Your task to perform on an android device: Show me recent news Image 0: 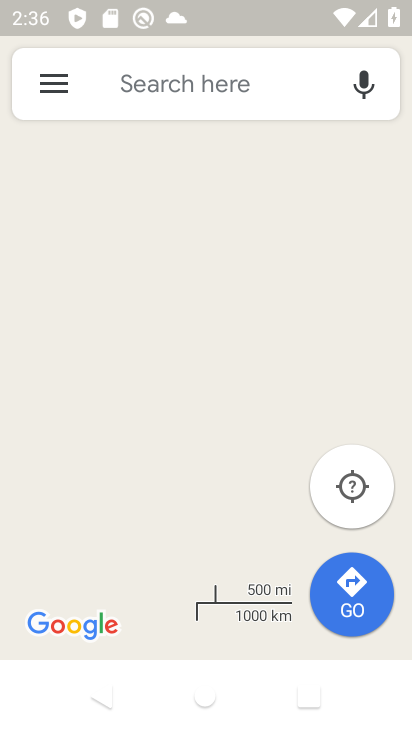
Step 0: press home button
Your task to perform on an android device: Show me recent news Image 1: 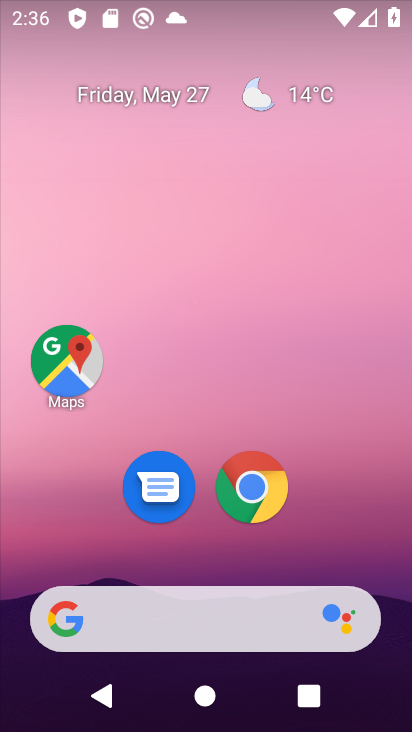
Step 1: click (254, 493)
Your task to perform on an android device: Show me recent news Image 2: 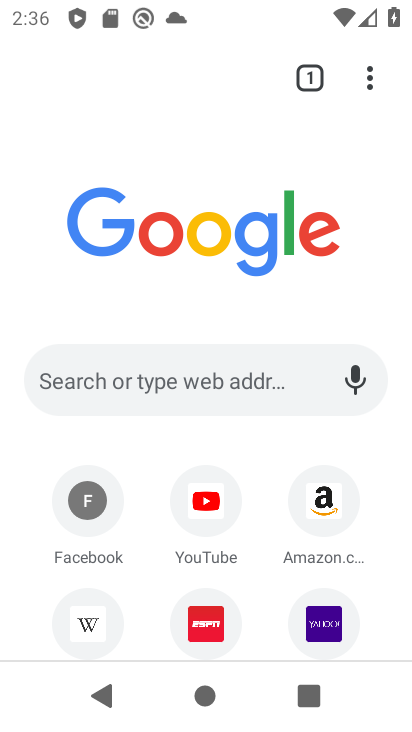
Step 2: click (231, 370)
Your task to perform on an android device: Show me recent news Image 3: 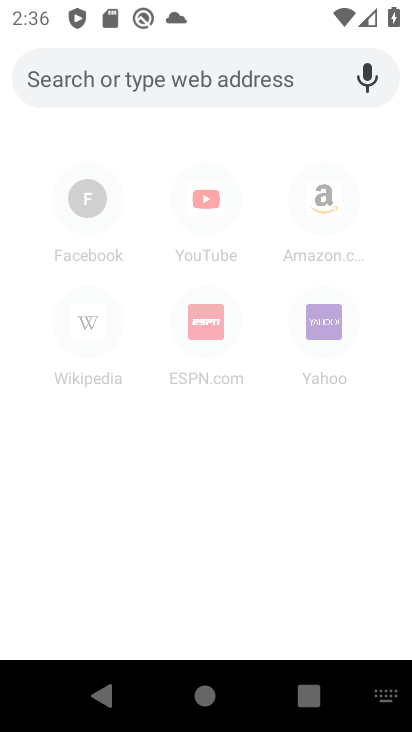
Step 3: type "Show me recent news"
Your task to perform on an android device: Show me recent news Image 4: 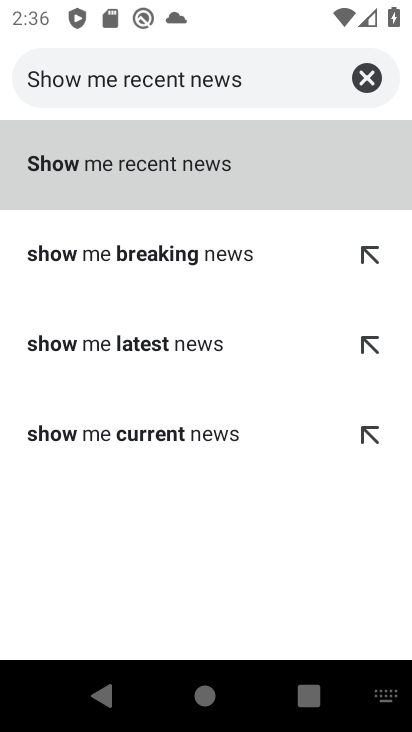
Step 4: click (168, 155)
Your task to perform on an android device: Show me recent news Image 5: 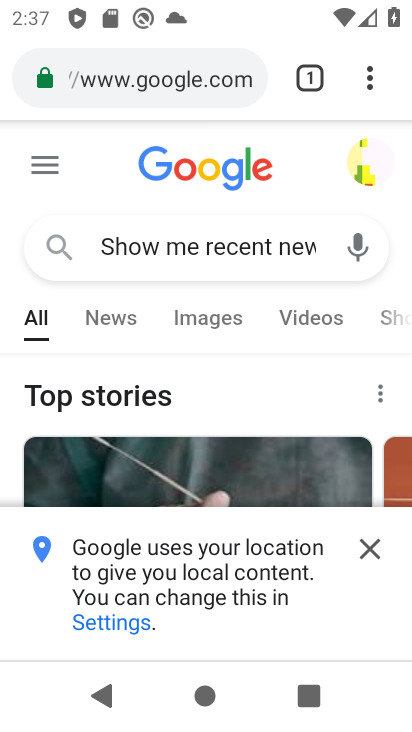
Step 5: drag from (255, 456) to (300, 131)
Your task to perform on an android device: Show me recent news Image 6: 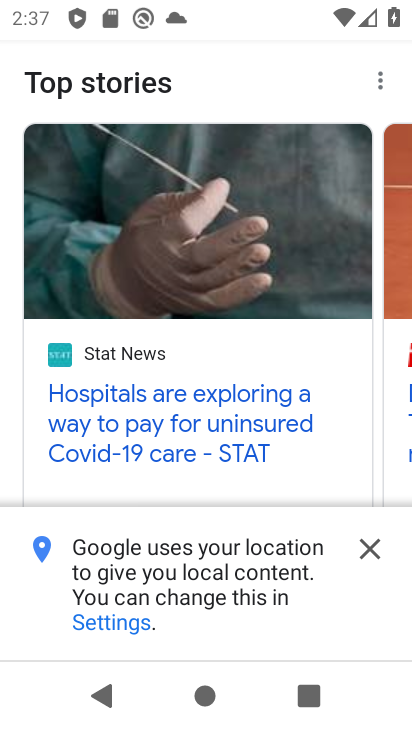
Step 6: drag from (181, 258) to (188, 444)
Your task to perform on an android device: Show me recent news Image 7: 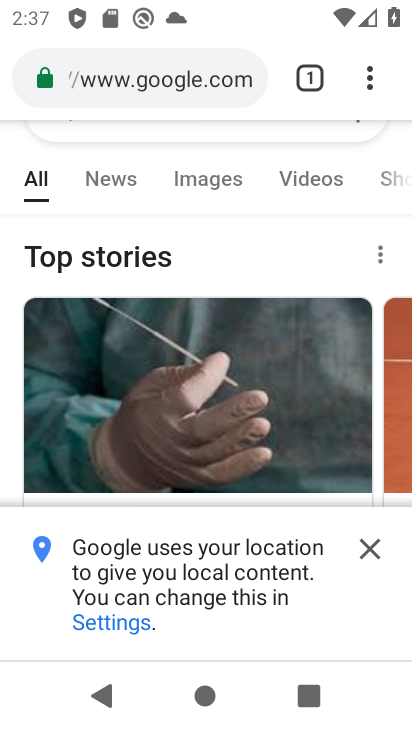
Step 7: click (108, 164)
Your task to perform on an android device: Show me recent news Image 8: 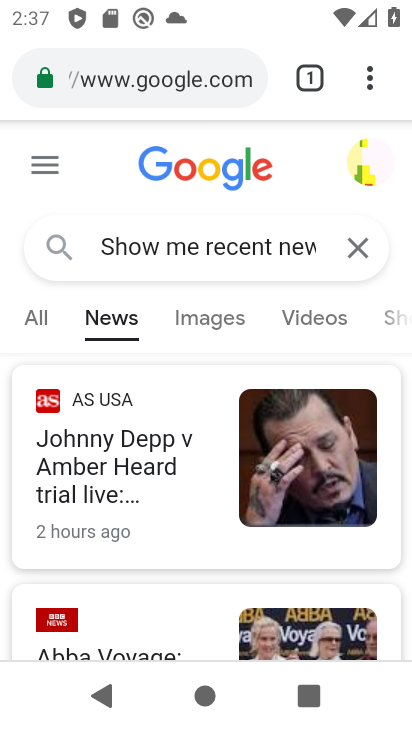
Step 8: task complete